Your task to perform on an android device: Open the web browser Image 0: 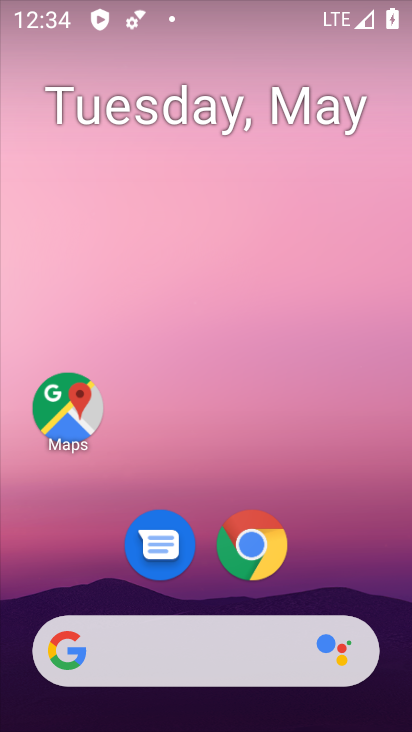
Step 0: drag from (341, 530) to (337, 142)
Your task to perform on an android device: Open the web browser Image 1: 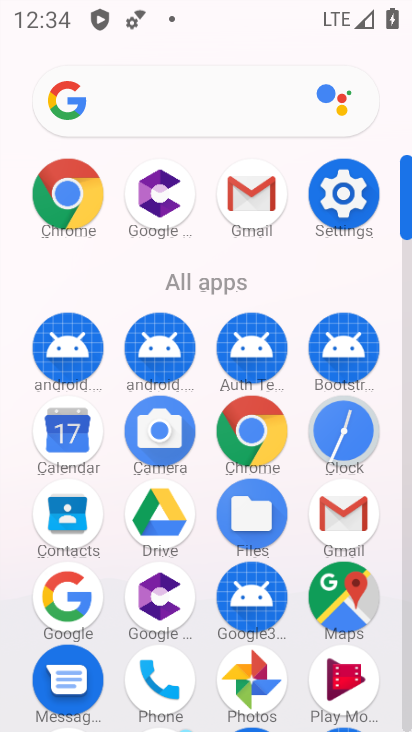
Step 1: click (233, 443)
Your task to perform on an android device: Open the web browser Image 2: 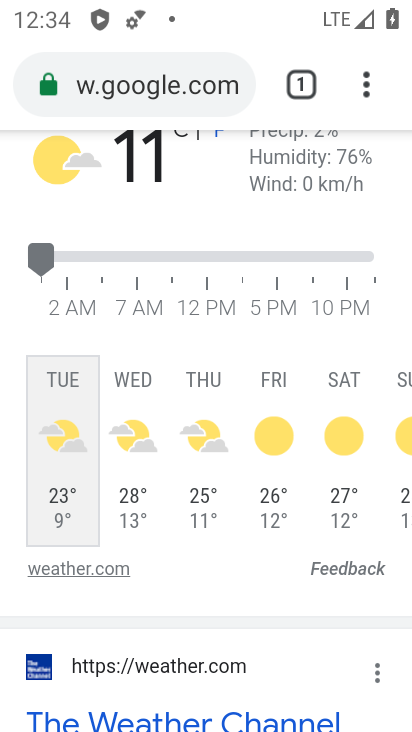
Step 2: task complete